Your task to perform on an android device: Go to Android settings Image 0: 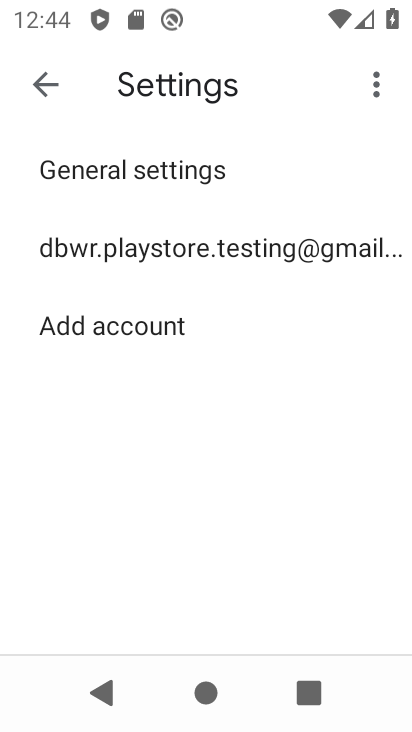
Step 0: press home button
Your task to perform on an android device: Go to Android settings Image 1: 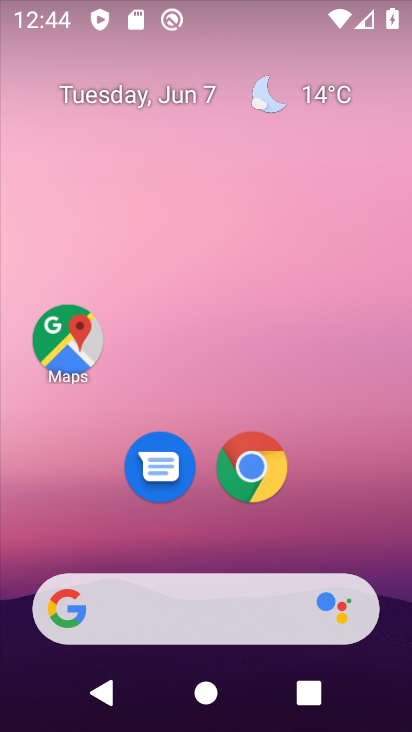
Step 1: drag from (176, 600) to (241, 62)
Your task to perform on an android device: Go to Android settings Image 2: 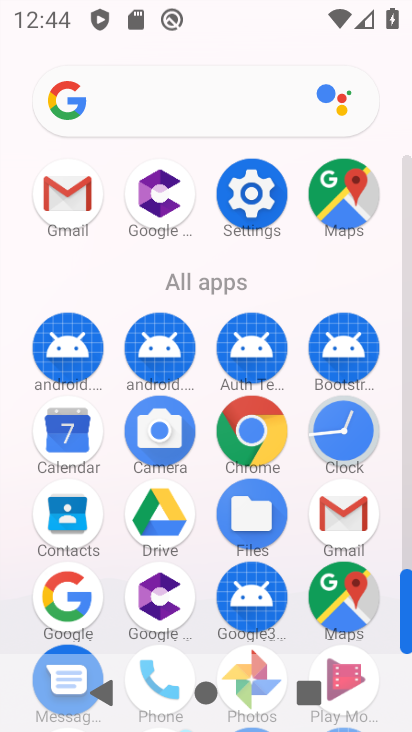
Step 2: click (244, 185)
Your task to perform on an android device: Go to Android settings Image 3: 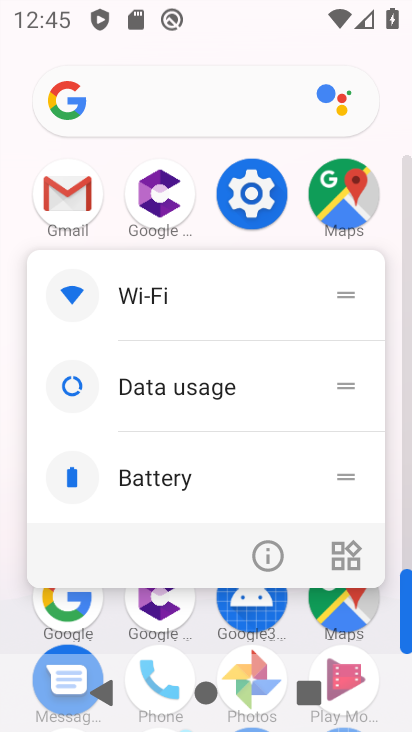
Step 3: click (255, 215)
Your task to perform on an android device: Go to Android settings Image 4: 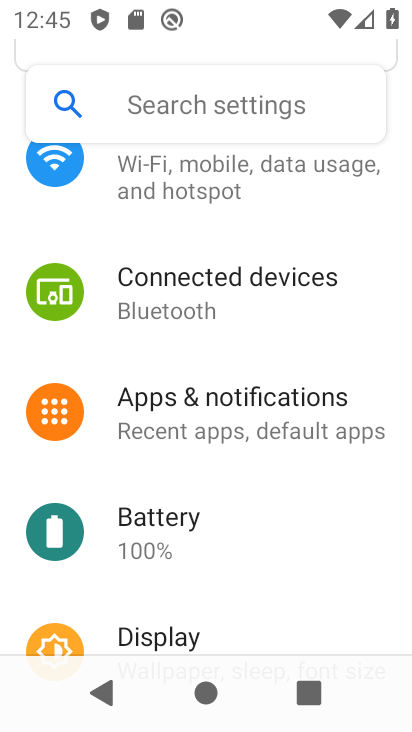
Step 4: task complete